Your task to perform on an android device: set the stopwatch Image 0: 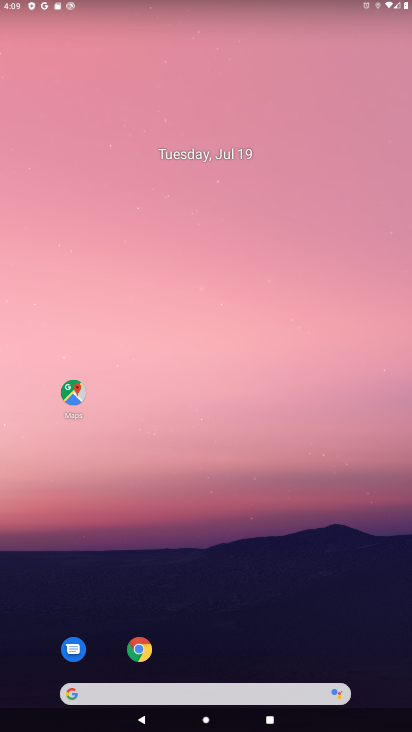
Step 0: drag from (351, 600) to (276, 102)
Your task to perform on an android device: set the stopwatch Image 1: 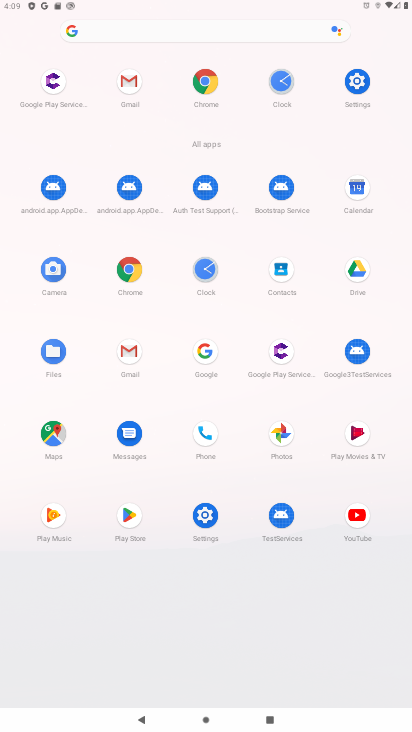
Step 1: click (287, 80)
Your task to perform on an android device: set the stopwatch Image 2: 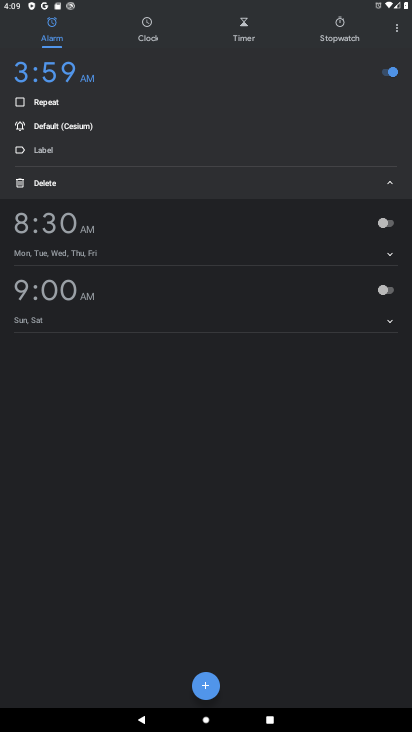
Step 2: click (351, 35)
Your task to perform on an android device: set the stopwatch Image 3: 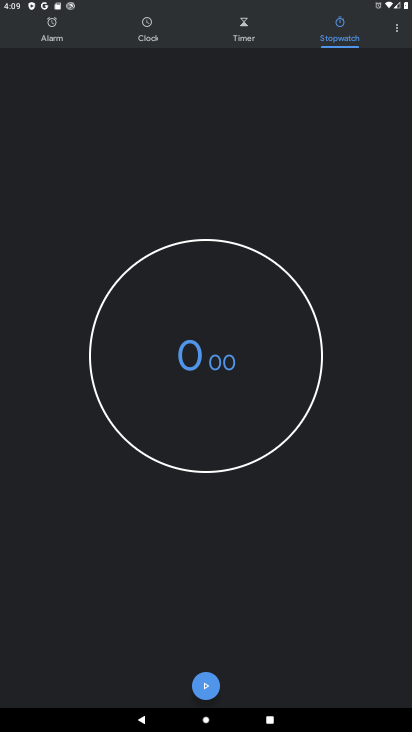
Step 3: click (207, 687)
Your task to perform on an android device: set the stopwatch Image 4: 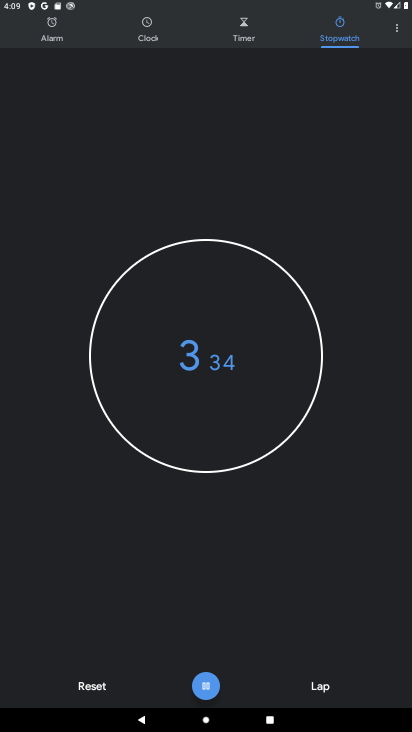
Step 4: task complete